Your task to perform on an android device: allow cookies in the chrome app Image 0: 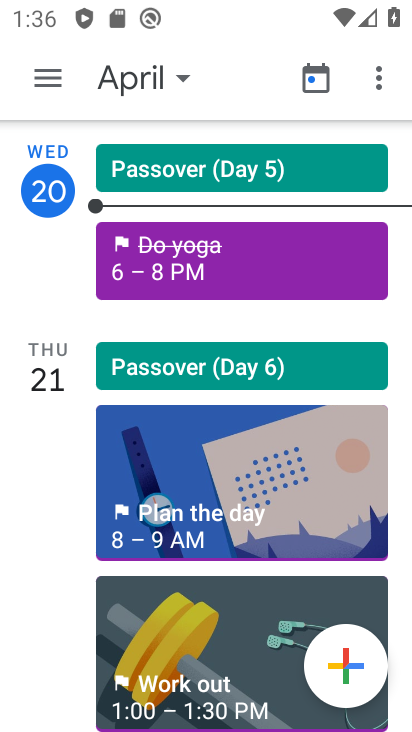
Step 0: press home button
Your task to perform on an android device: allow cookies in the chrome app Image 1: 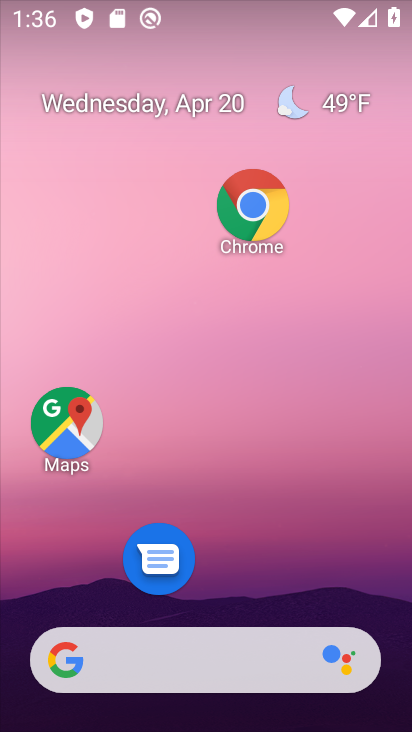
Step 1: drag from (232, 605) to (208, 201)
Your task to perform on an android device: allow cookies in the chrome app Image 2: 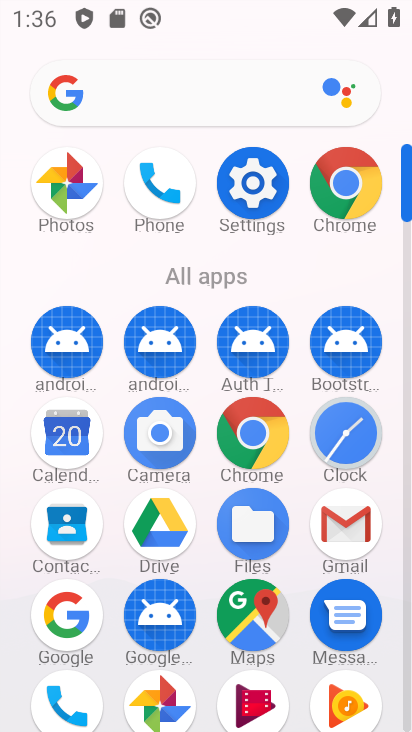
Step 2: click (334, 190)
Your task to perform on an android device: allow cookies in the chrome app Image 3: 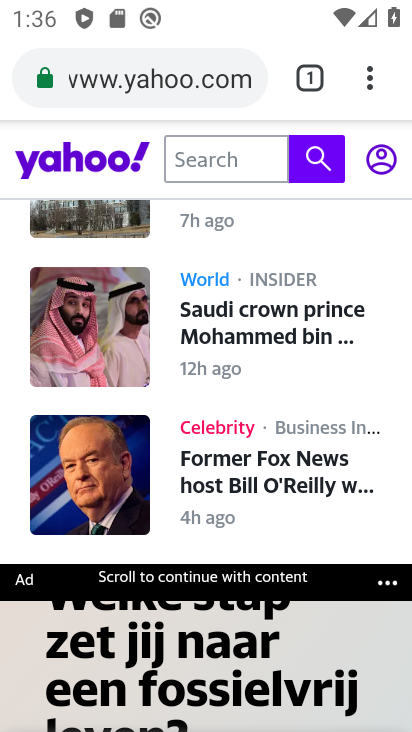
Step 3: click (367, 79)
Your task to perform on an android device: allow cookies in the chrome app Image 4: 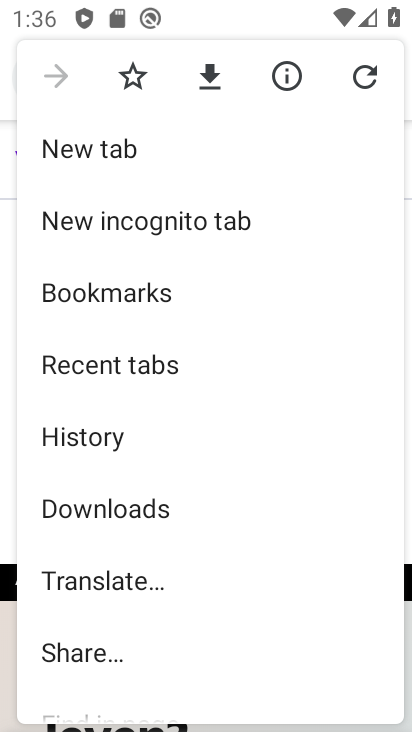
Step 4: drag from (101, 592) to (104, 337)
Your task to perform on an android device: allow cookies in the chrome app Image 5: 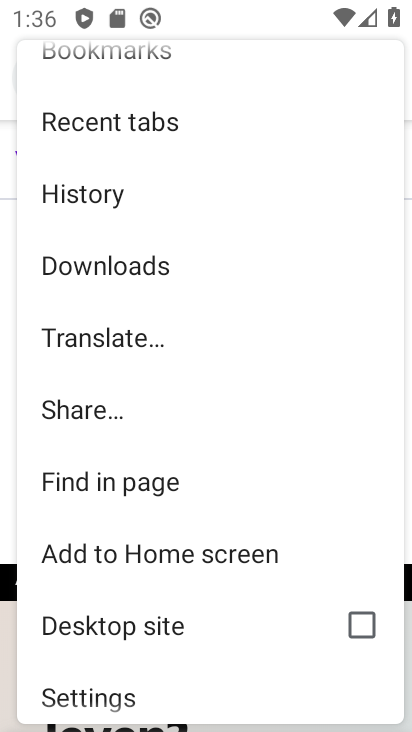
Step 5: click (73, 705)
Your task to perform on an android device: allow cookies in the chrome app Image 6: 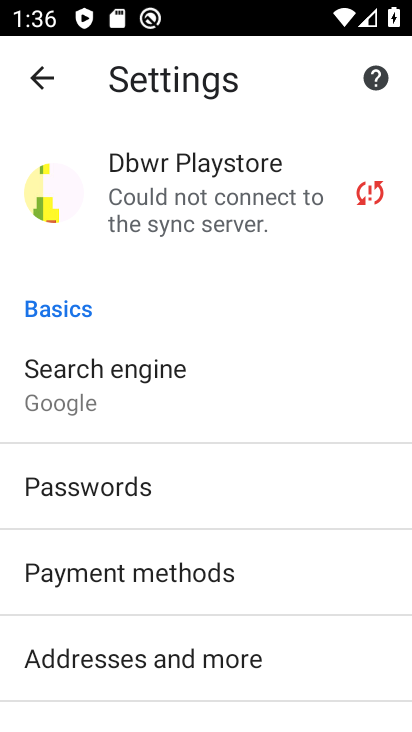
Step 6: drag from (128, 671) to (170, 304)
Your task to perform on an android device: allow cookies in the chrome app Image 7: 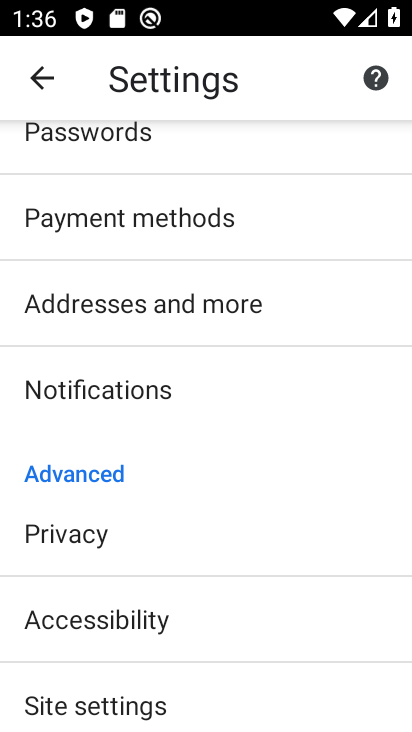
Step 7: click (80, 707)
Your task to perform on an android device: allow cookies in the chrome app Image 8: 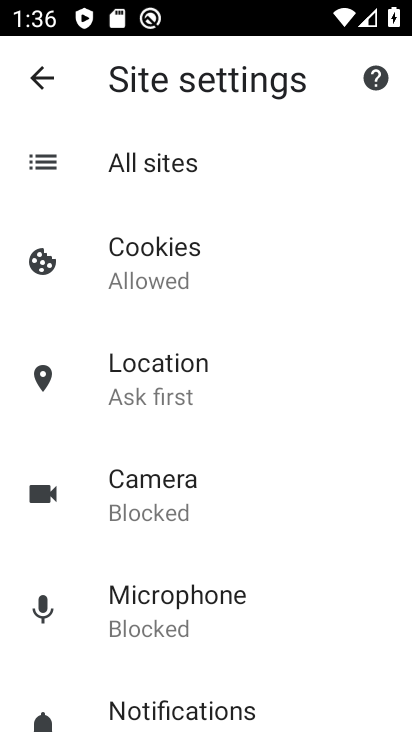
Step 8: click (137, 262)
Your task to perform on an android device: allow cookies in the chrome app Image 9: 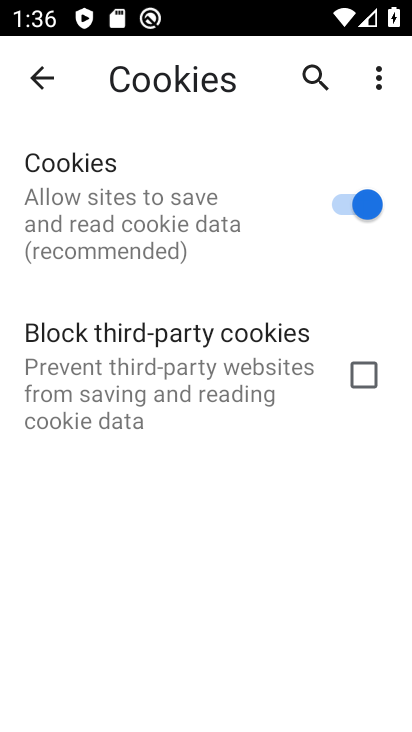
Step 9: task complete